Your task to perform on an android device: Go to Google Image 0: 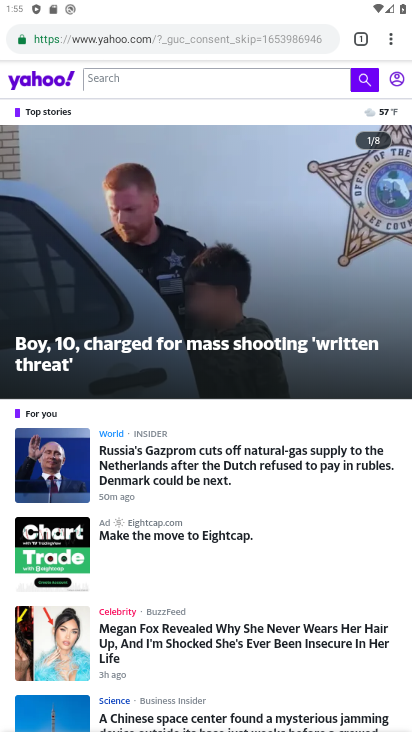
Step 0: press home button
Your task to perform on an android device: Go to Google Image 1: 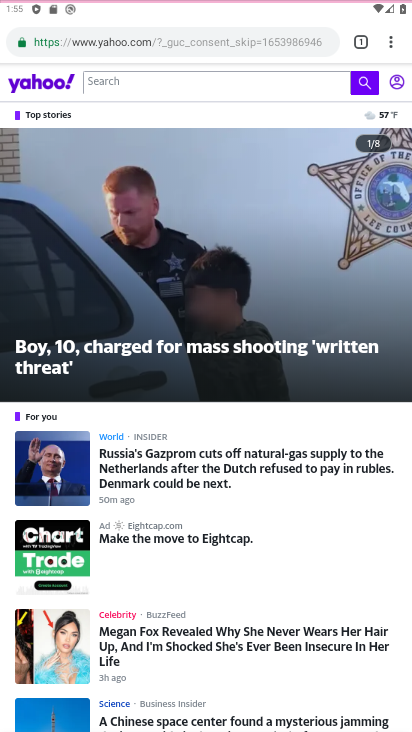
Step 1: press home button
Your task to perform on an android device: Go to Google Image 2: 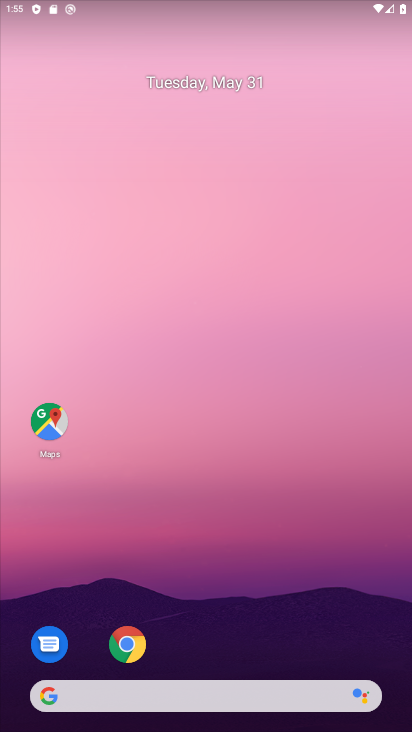
Step 2: drag from (254, 628) to (140, 106)
Your task to perform on an android device: Go to Google Image 3: 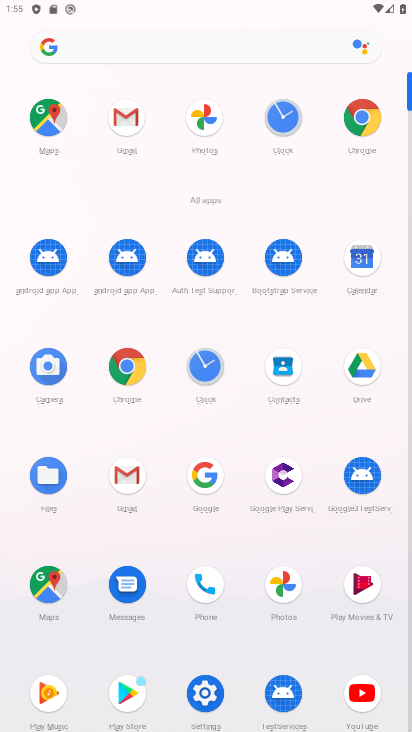
Step 3: click (223, 464)
Your task to perform on an android device: Go to Google Image 4: 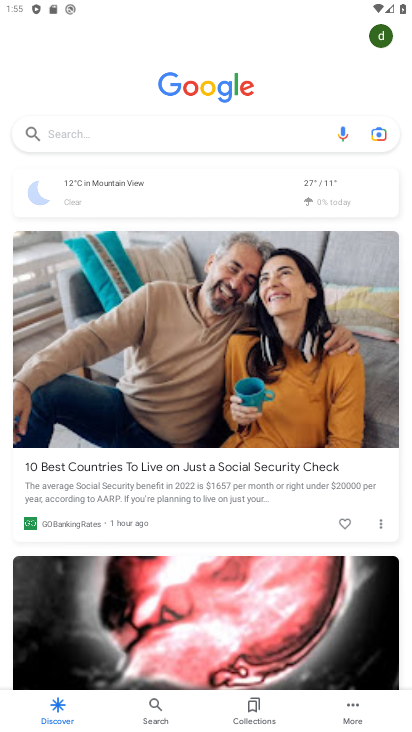
Step 4: task complete